Your task to perform on an android device: read, delete, or share a saved page in the chrome app Image 0: 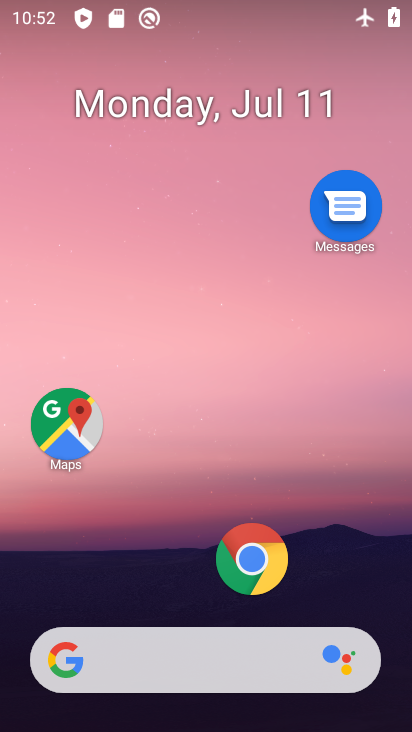
Step 0: drag from (363, 564) to (361, 256)
Your task to perform on an android device: read, delete, or share a saved page in the chrome app Image 1: 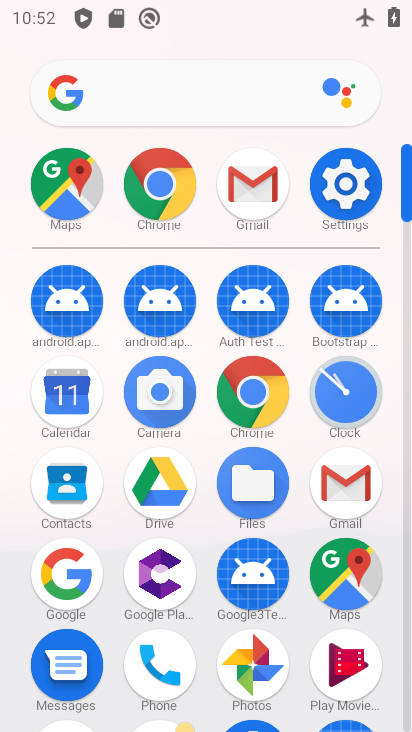
Step 1: click (260, 389)
Your task to perform on an android device: read, delete, or share a saved page in the chrome app Image 2: 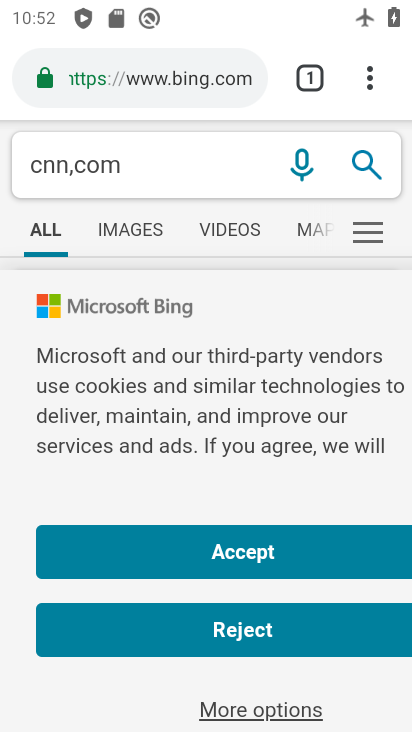
Step 2: click (370, 79)
Your task to perform on an android device: read, delete, or share a saved page in the chrome app Image 3: 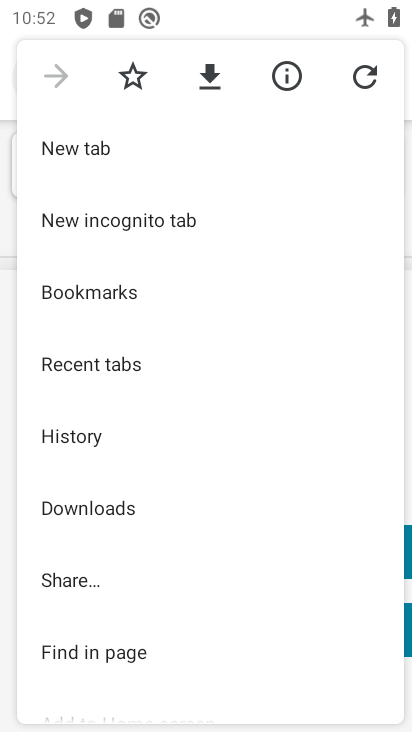
Step 3: click (120, 512)
Your task to perform on an android device: read, delete, or share a saved page in the chrome app Image 4: 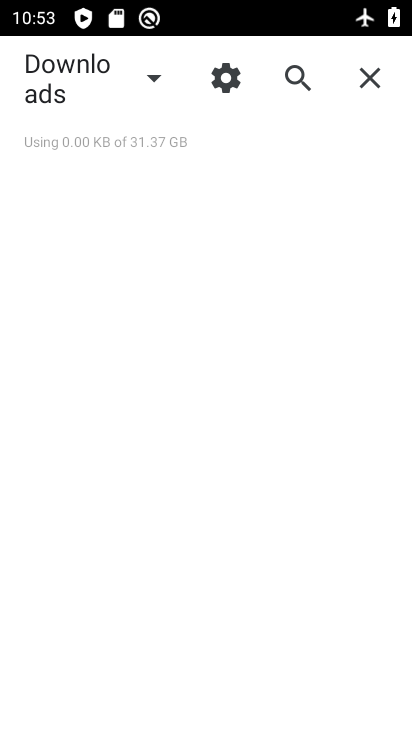
Step 4: click (146, 79)
Your task to perform on an android device: read, delete, or share a saved page in the chrome app Image 5: 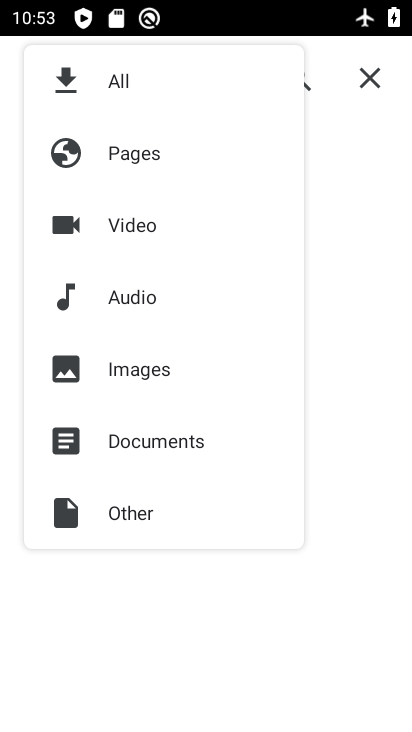
Step 5: click (141, 163)
Your task to perform on an android device: read, delete, or share a saved page in the chrome app Image 6: 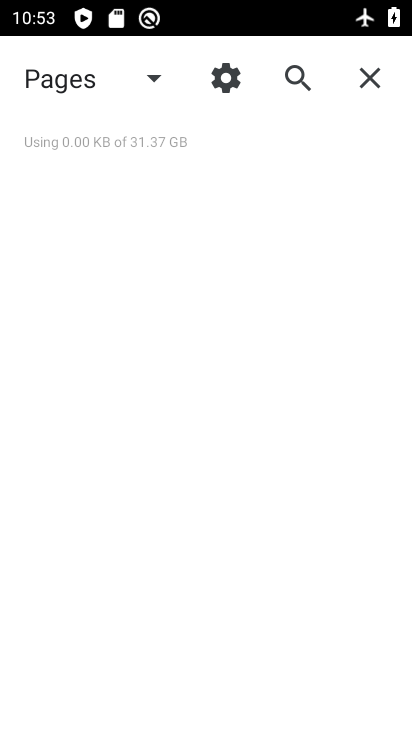
Step 6: task complete